Your task to perform on an android device: add a contact in the contacts app Image 0: 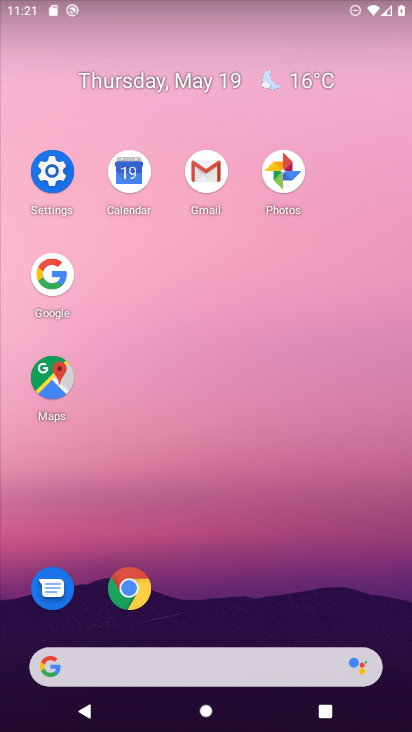
Step 0: drag from (255, 389) to (283, 210)
Your task to perform on an android device: add a contact in the contacts app Image 1: 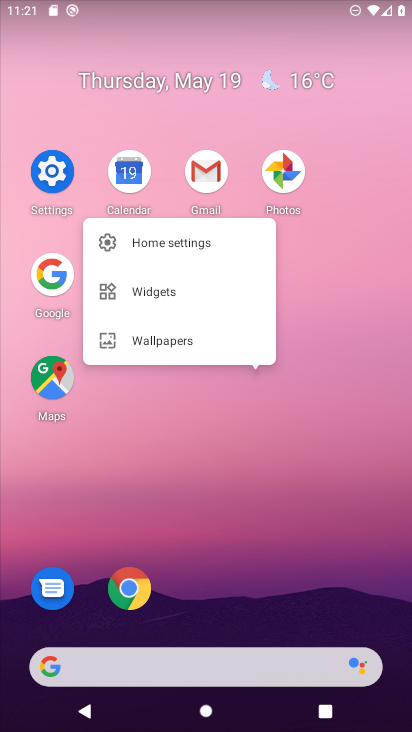
Step 1: click (301, 210)
Your task to perform on an android device: add a contact in the contacts app Image 2: 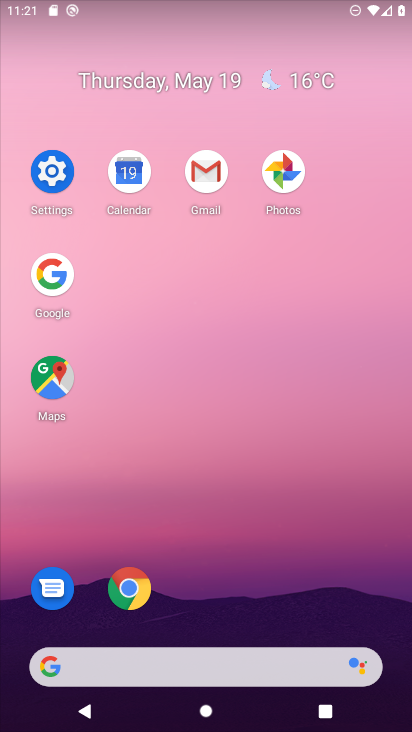
Step 2: drag from (288, 552) to (269, 209)
Your task to perform on an android device: add a contact in the contacts app Image 3: 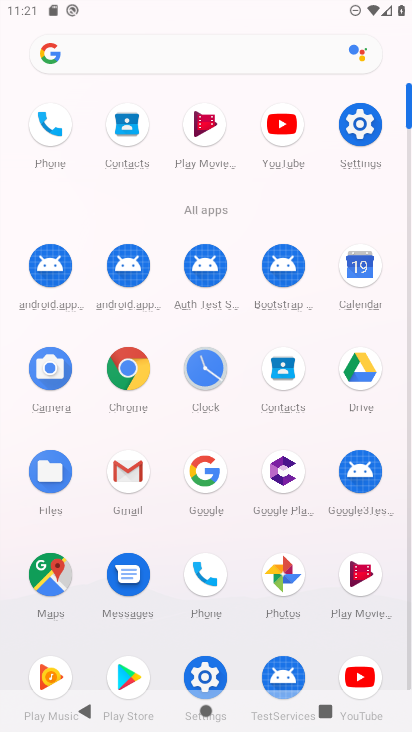
Step 3: click (302, 369)
Your task to perform on an android device: add a contact in the contacts app Image 4: 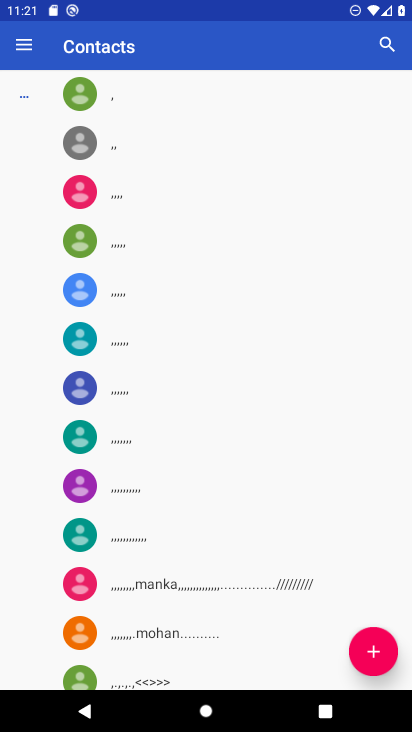
Step 4: click (400, 637)
Your task to perform on an android device: add a contact in the contacts app Image 5: 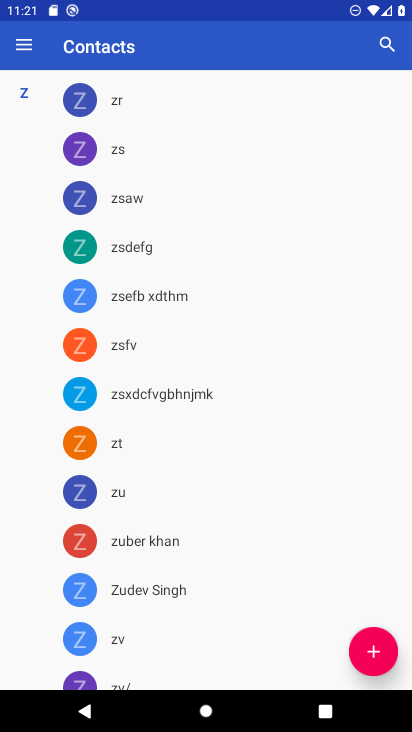
Step 5: click (381, 651)
Your task to perform on an android device: add a contact in the contacts app Image 6: 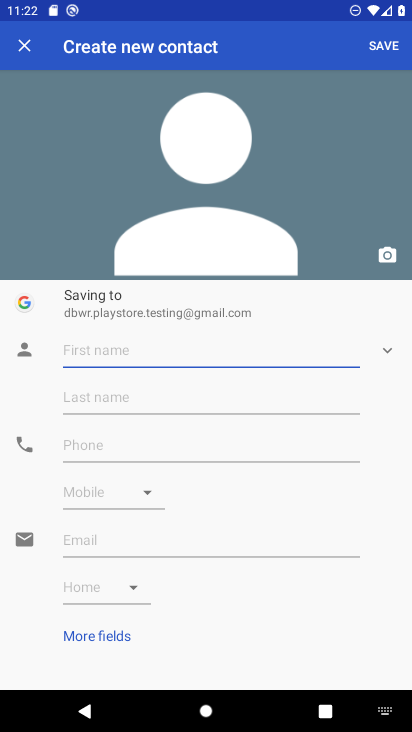
Step 6: type "home"
Your task to perform on an android device: add a contact in the contacts app Image 7: 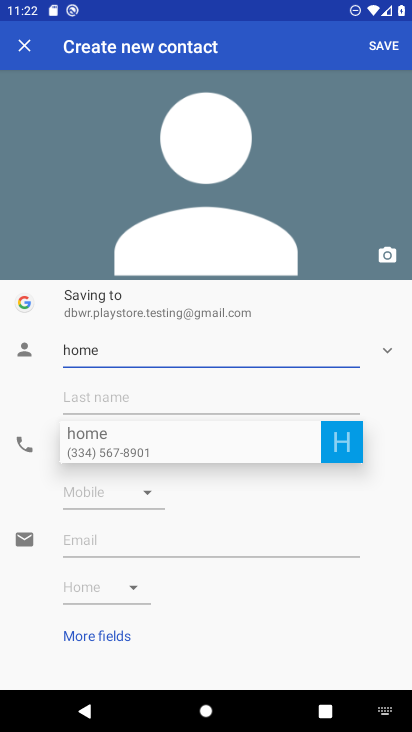
Step 7: click (142, 394)
Your task to perform on an android device: add a contact in the contacts app Image 8: 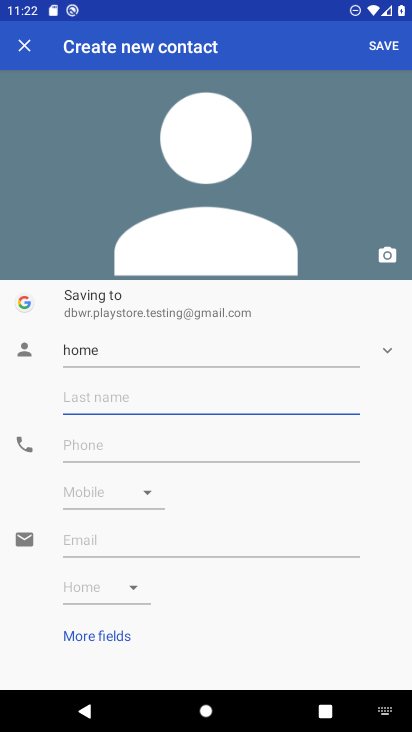
Step 8: type "shop"
Your task to perform on an android device: add a contact in the contacts app Image 9: 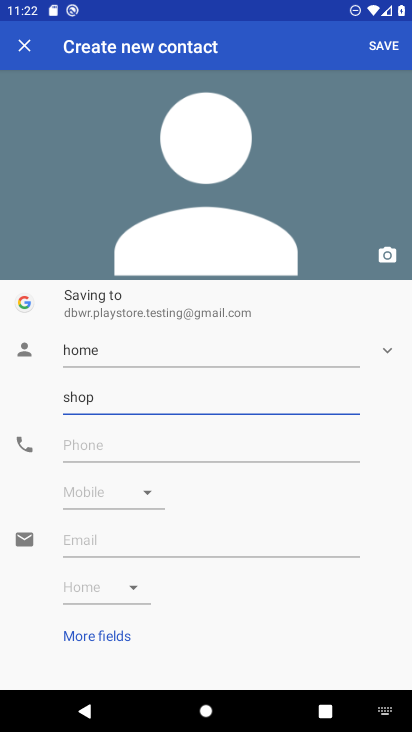
Step 9: click (115, 447)
Your task to perform on an android device: add a contact in the contacts app Image 10: 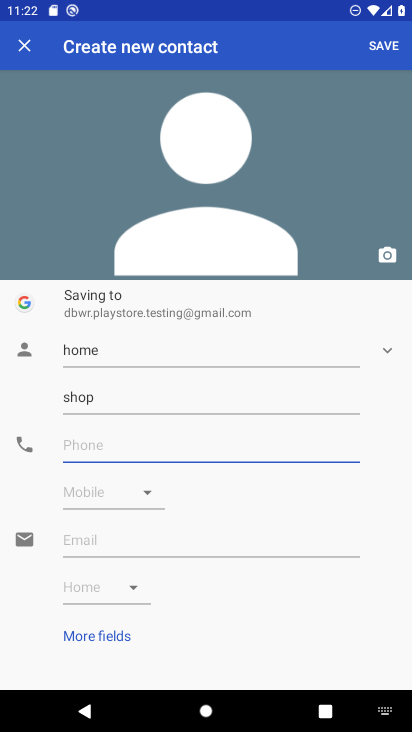
Step 10: type "6677889900"
Your task to perform on an android device: add a contact in the contacts app Image 11: 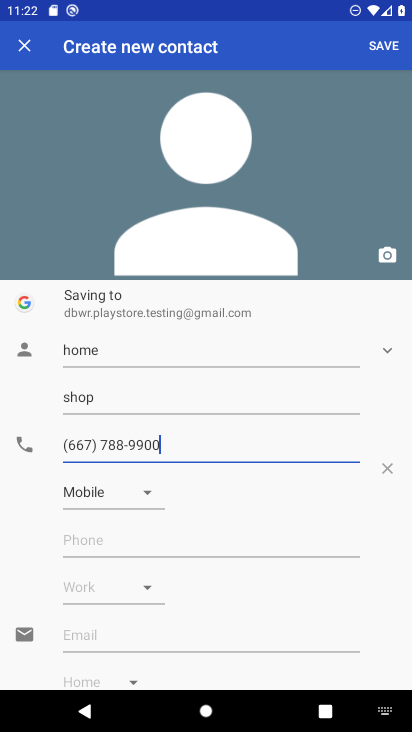
Step 11: click (379, 54)
Your task to perform on an android device: add a contact in the contacts app Image 12: 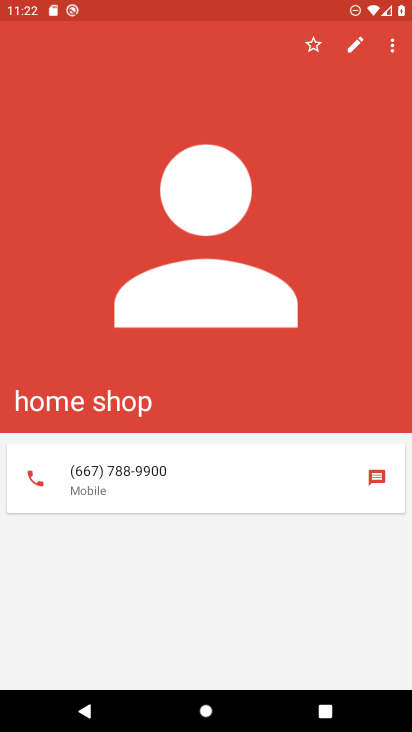
Step 12: task complete